Your task to perform on an android device: set default search engine in the chrome app Image 0: 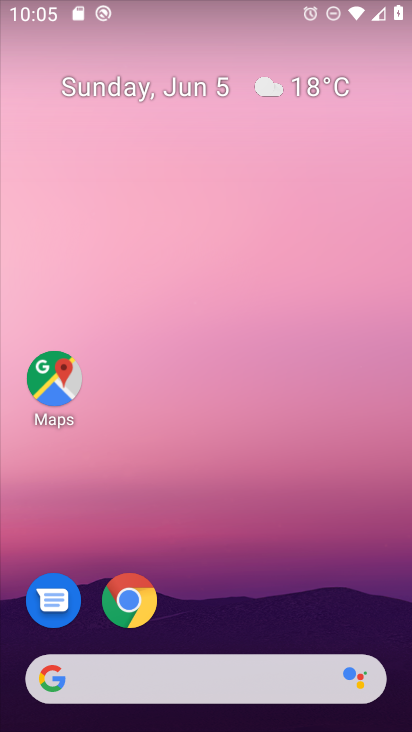
Step 0: click (139, 595)
Your task to perform on an android device: set default search engine in the chrome app Image 1: 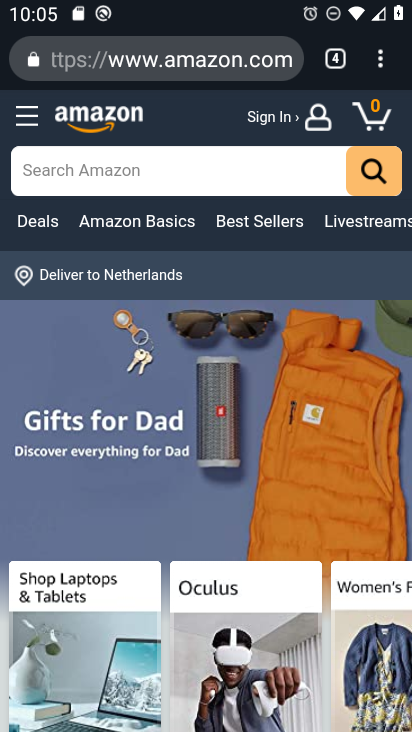
Step 1: click (372, 80)
Your task to perform on an android device: set default search engine in the chrome app Image 2: 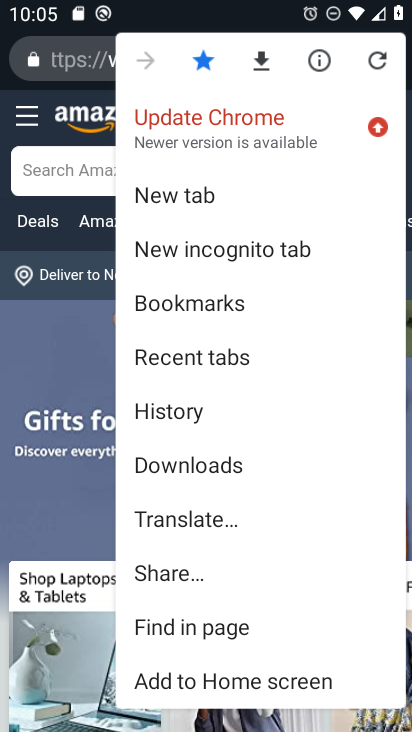
Step 2: drag from (254, 568) to (260, 273)
Your task to perform on an android device: set default search engine in the chrome app Image 3: 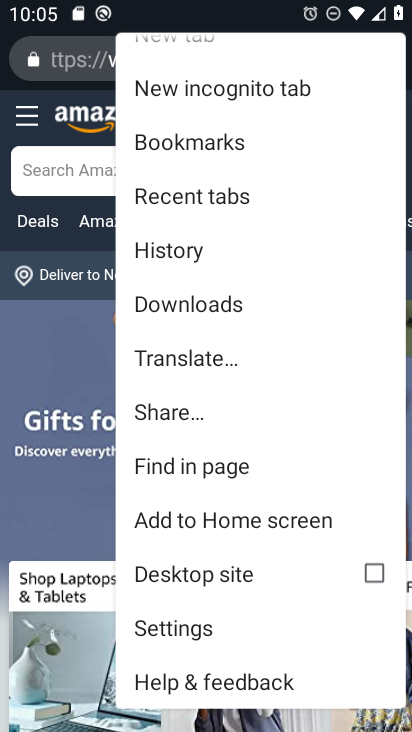
Step 3: click (203, 614)
Your task to perform on an android device: set default search engine in the chrome app Image 4: 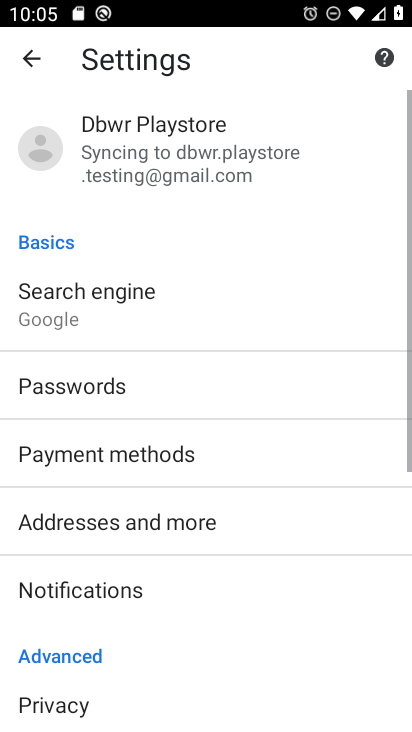
Step 4: click (199, 310)
Your task to perform on an android device: set default search engine in the chrome app Image 5: 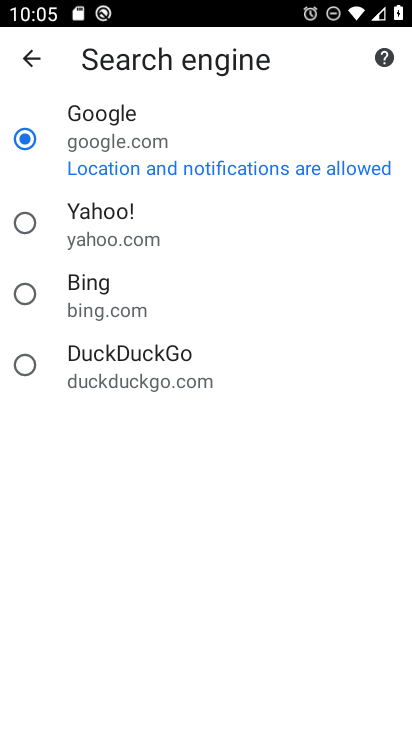
Step 5: task complete